Your task to perform on an android device: Search for the new Jordans on Nike.com Image 0: 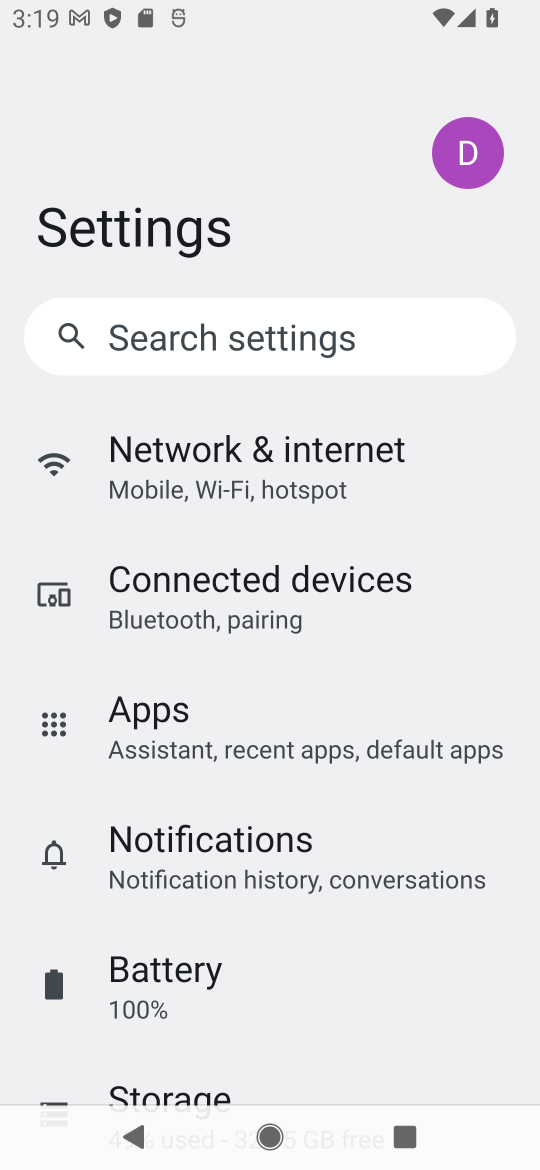
Step 0: press home button
Your task to perform on an android device: Search for the new Jordans on Nike.com Image 1: 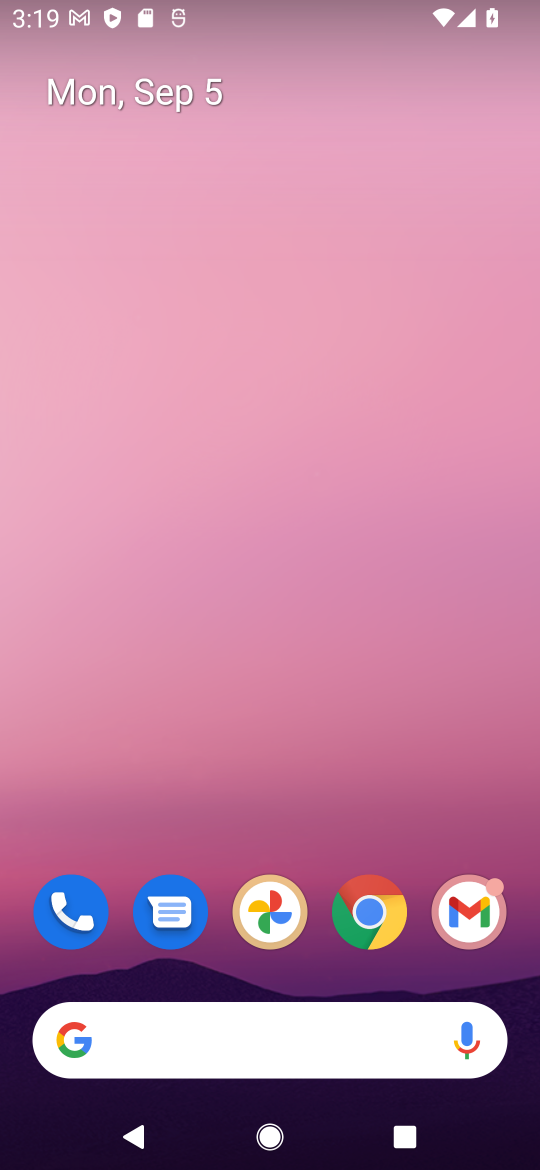
Step 1: click (356, 918)
Your task to perform on an android device: Search for the new Jordans on Nike.com Image 2: 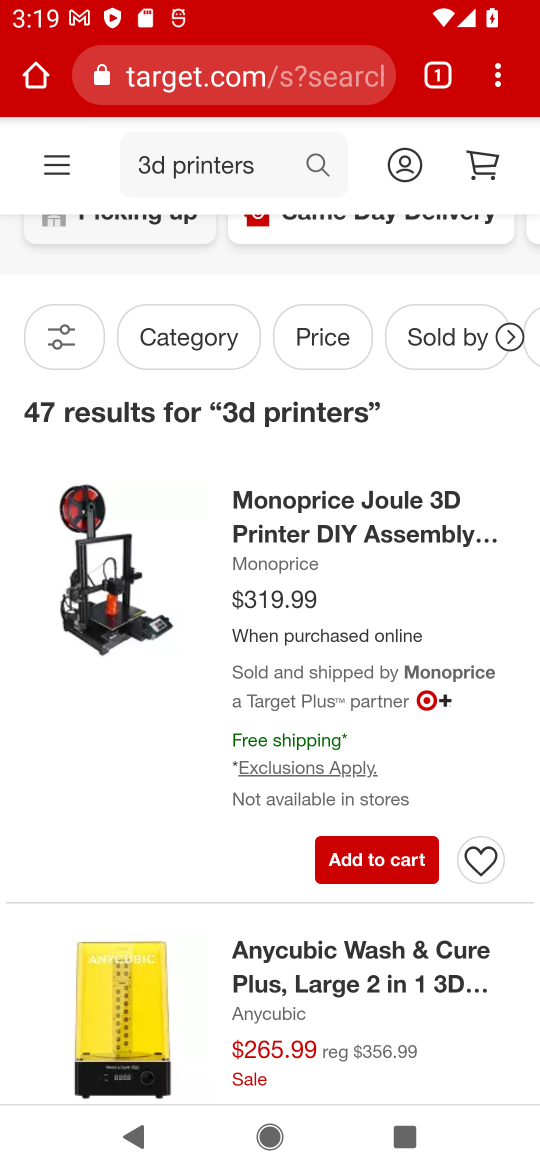
Step 2: click (239, 91)
Your task to perform on an android device: Search for the new Jordans on Nike.com Image 3: 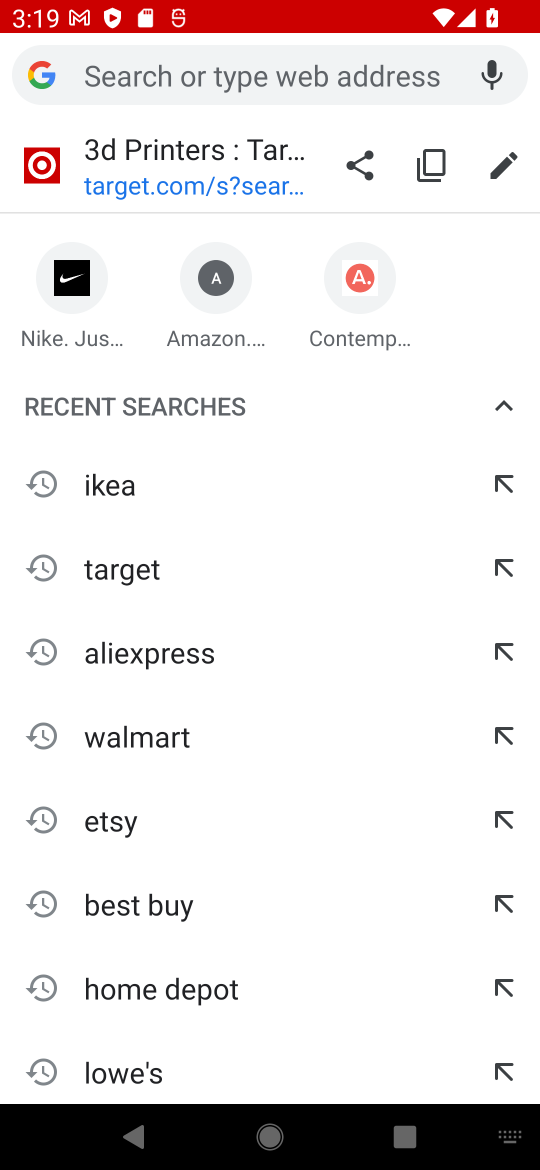
Step 3: type "nike.com"
Your task to perform on an android device: Search for the new Jordans on Nike.com Image 4: 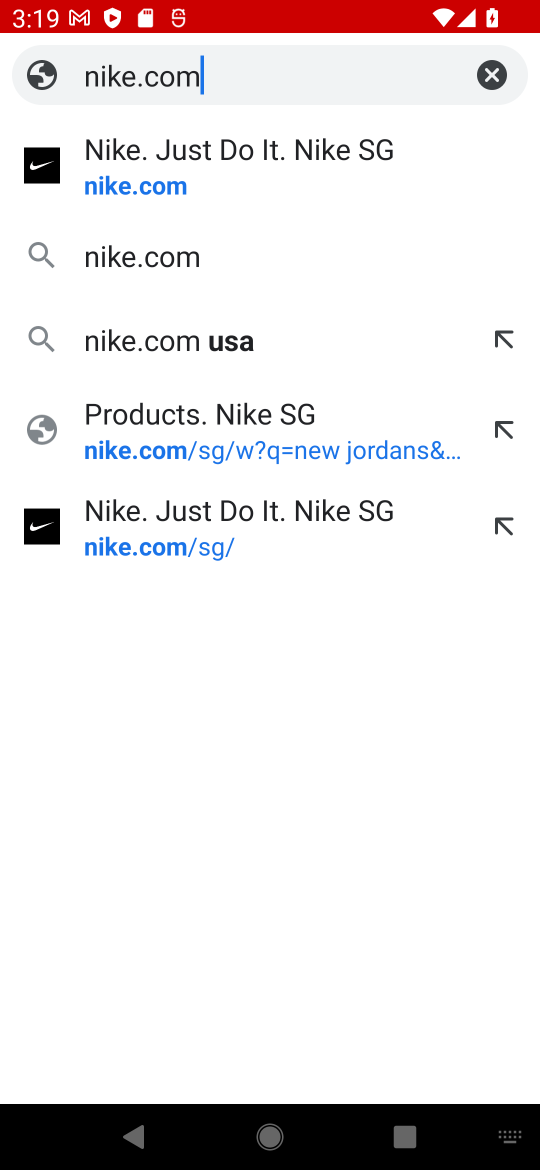
Step 4: press enter
Your task to perform on an android device: Search for the new Jordans on Nike.com Image 5: 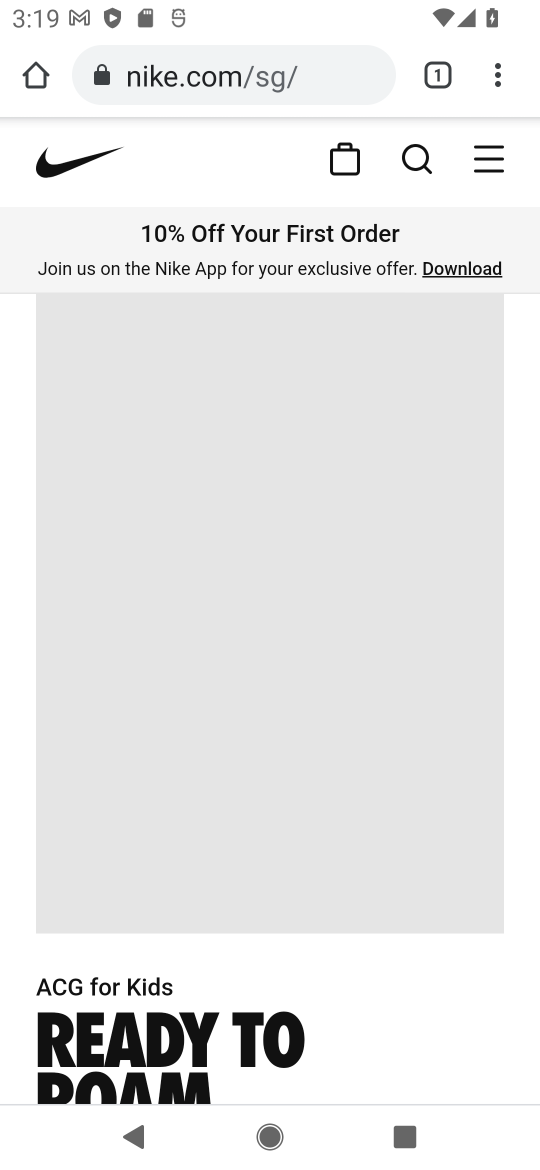
Step 5: click (426, 152)
Your task to perform on an android device: Search for the new Jordans on Nike.com Image 6: 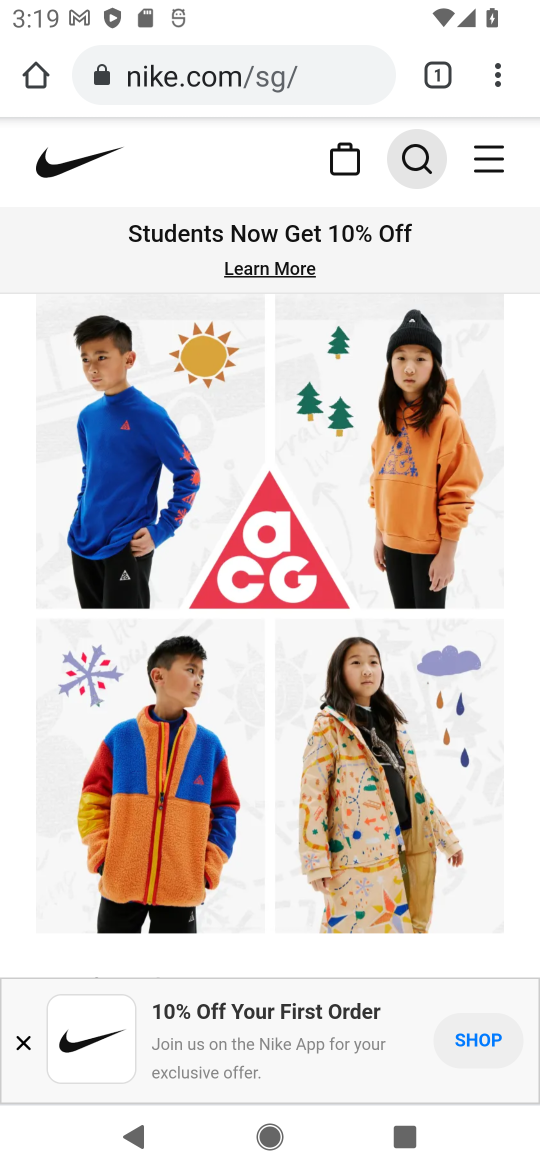
Step 6: click (420, 164)
Your task to perform on an android device: Search for the new Jordans on Nike.com Image 7: 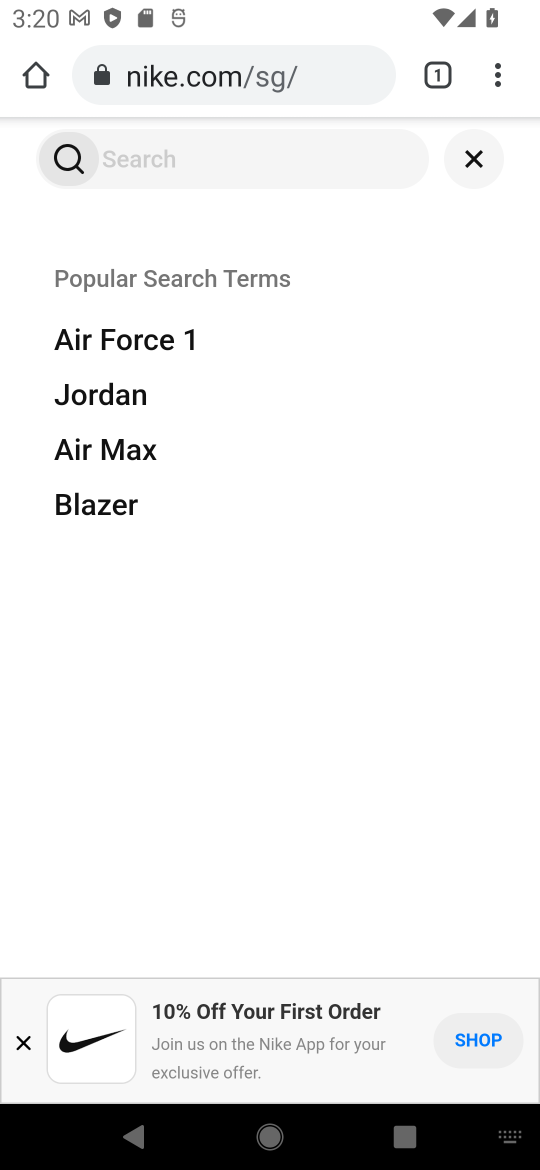
Step 7: type "new jordans"
Your task to perform on an android device: Search for the new Jordans on Nike.com Image 8: 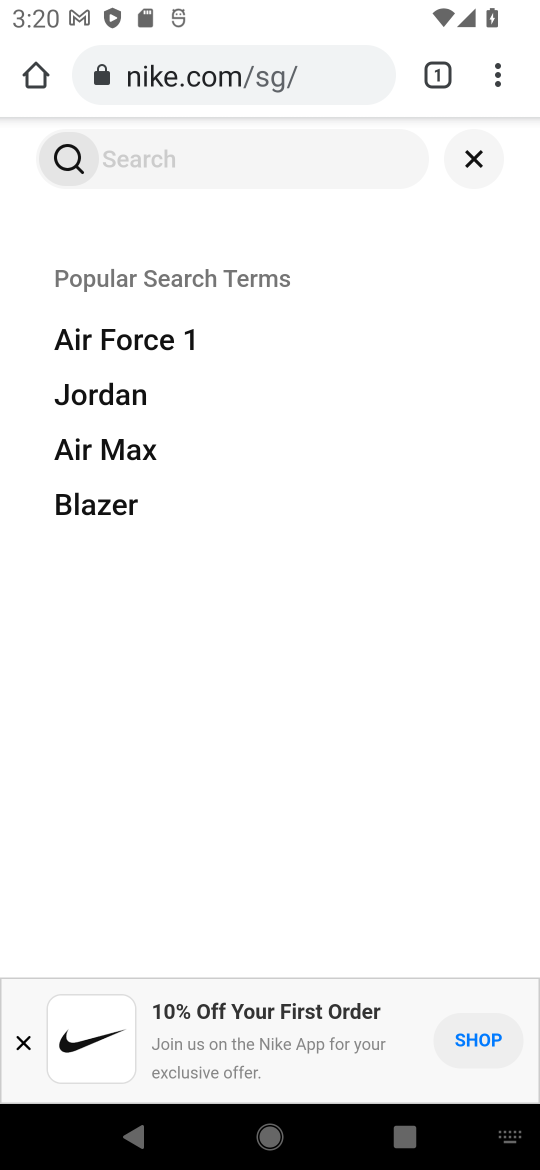
Step 8: type ""
Your task to perform on an android device: Search for the new Jordans on Nike.com Image 9: 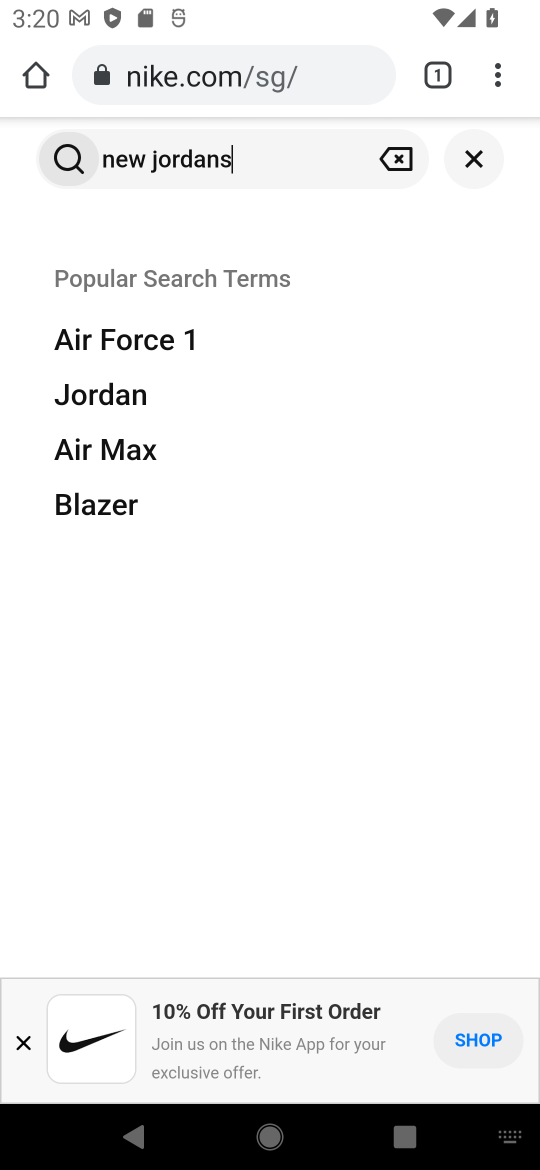
Step 9: press enter
Your task to perform on an android device: Search for the new Jordans on Nike.com Image 10: 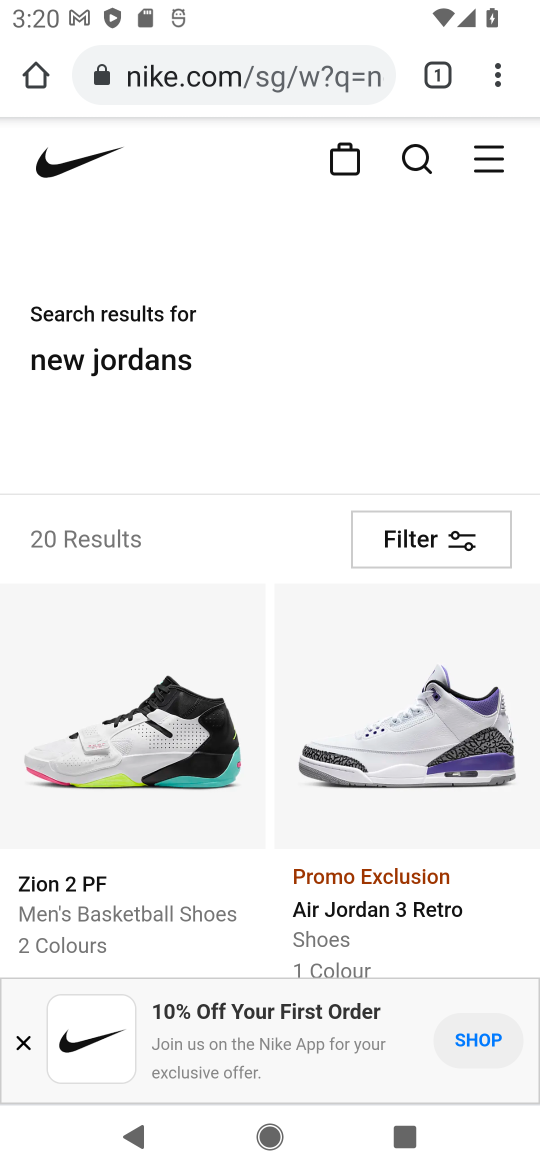
Step 10: task complete